Your task to perform on an android device: delete location history Image 0: 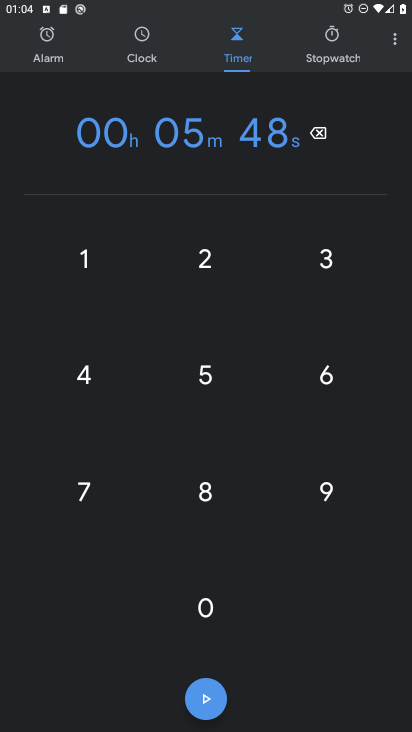
Step 0: drag from (240, 709) to (245, 405)
Your task to perform on an android device: delete location history Image 1: 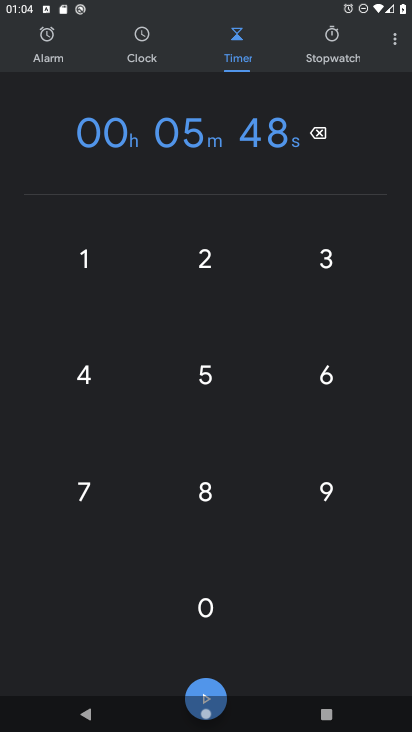
Step 1: press home button
Your task to perform on an android device: delete location history Image 2: 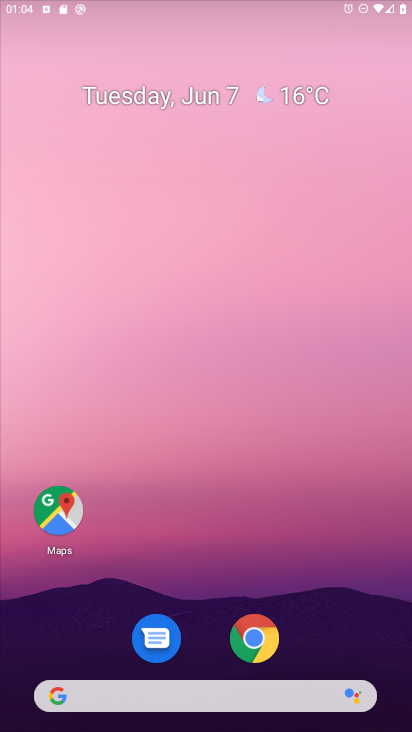
Step 2: drag from (214, 698) to (246, 231)
Your task to perform on an android device: delete location history Image 3: 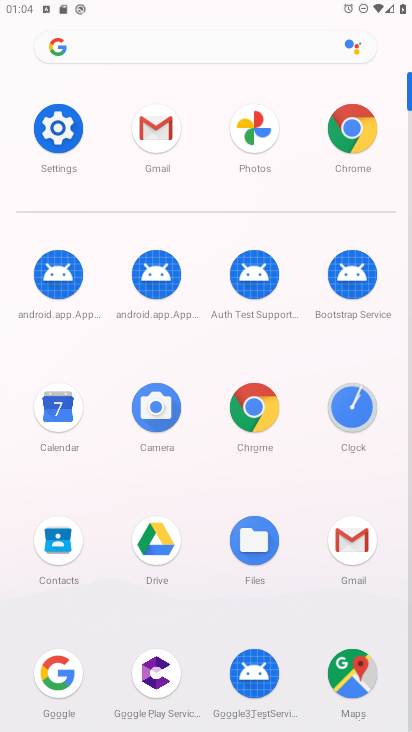
Step 3: click (52, 114)
Your task to perform on an android device: delete location history Image 4: 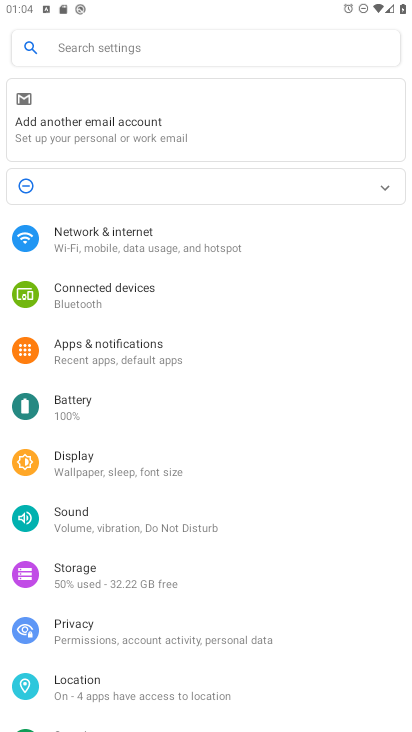
Step 4: click (148, 44)
Your task to perform on an android device: delete location history Image 5: 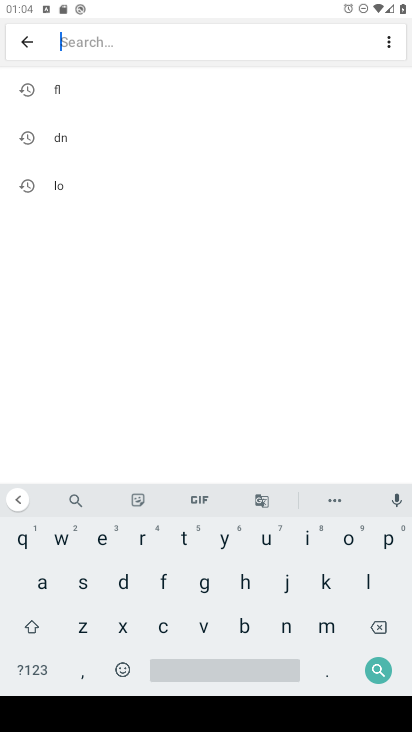
Step 5: click (116, 183)
Your task to perform on an android device: delete location history Image 6: 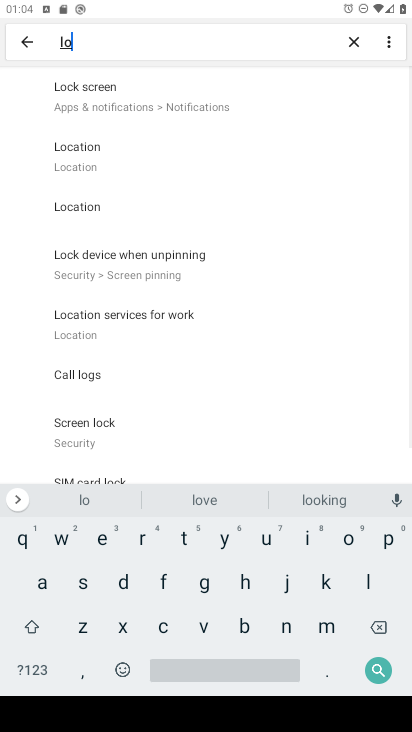
Step 6: click (139, 153)
Your task to perform on an android device: delete location history Image 7: 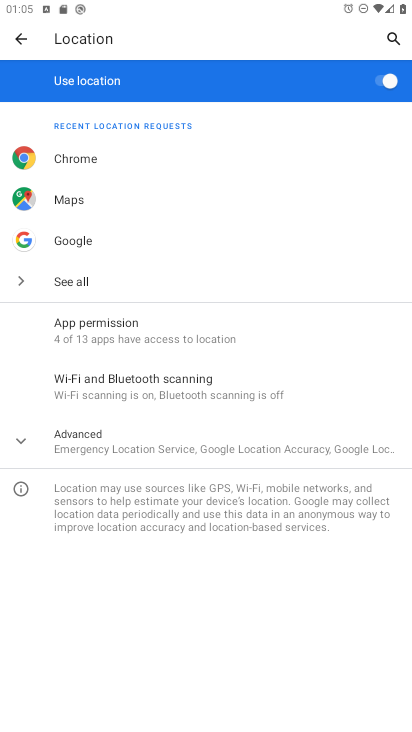
Step 7: task complete